Your task to perform on an android device: Open internet settings Image 0: 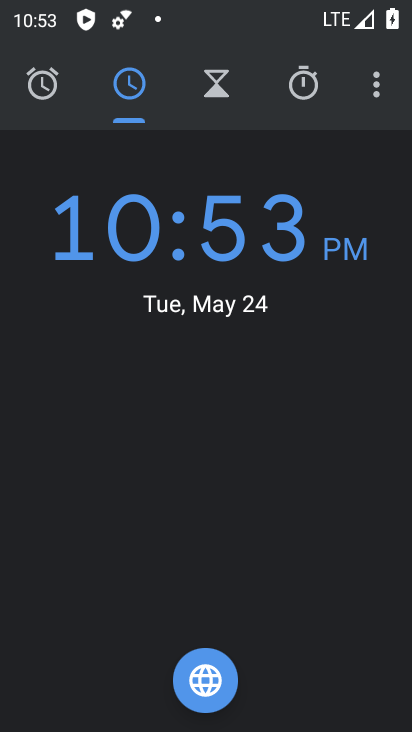
Step 0: press home button
Your task to perform on an android device: Open internet settings Image 1: 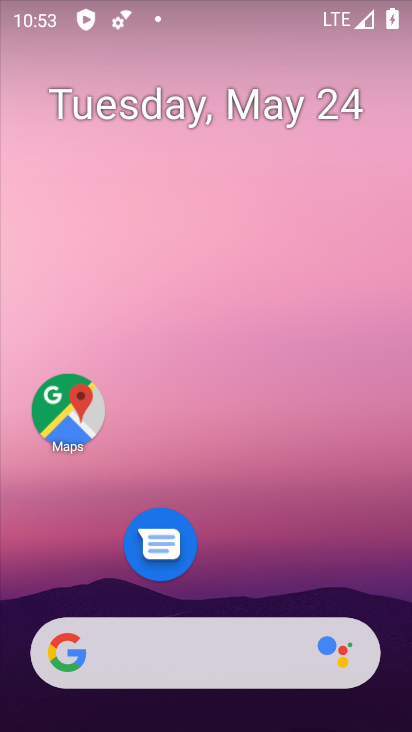
Step 1: drag from (218, 648) to (181, 154)
Your task to perform on an android device: Open internet settings Image 2: 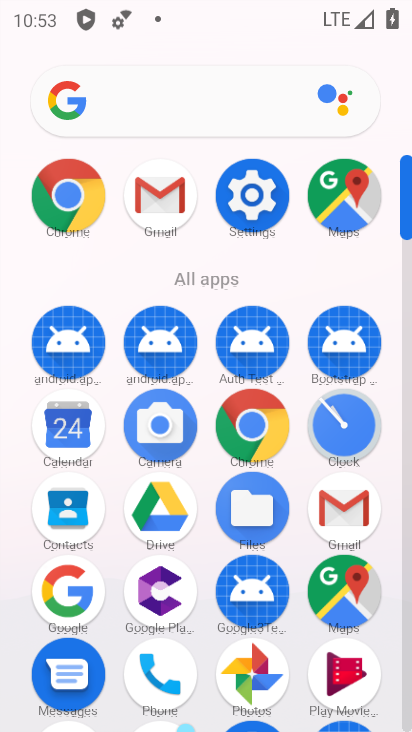
Step 2: click (247, 192)
Your task to perform on an android device: Open internet settings Image 3: 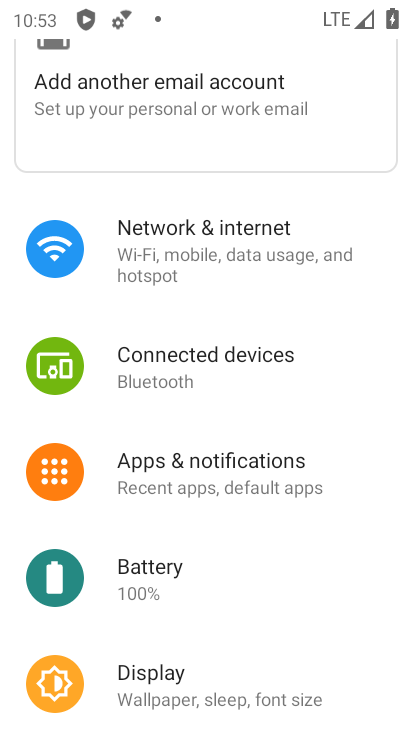
Step 3: click (174, 240)
Your task to perform on an android device: Open internet settings Image 4: 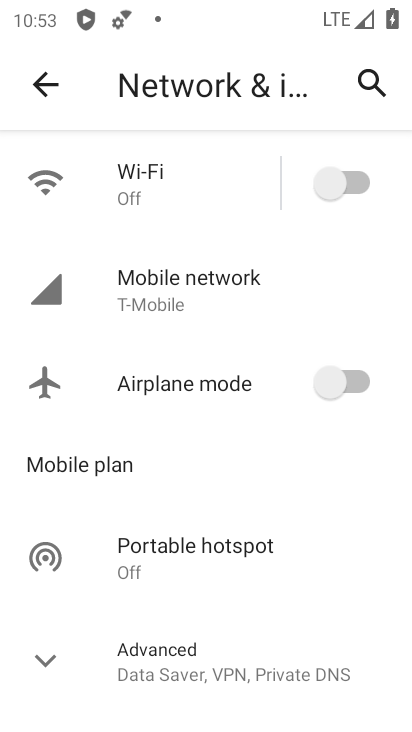
Step 4: task complete